Your task to perform on an android device: turn on bluetooth scan Image 0: 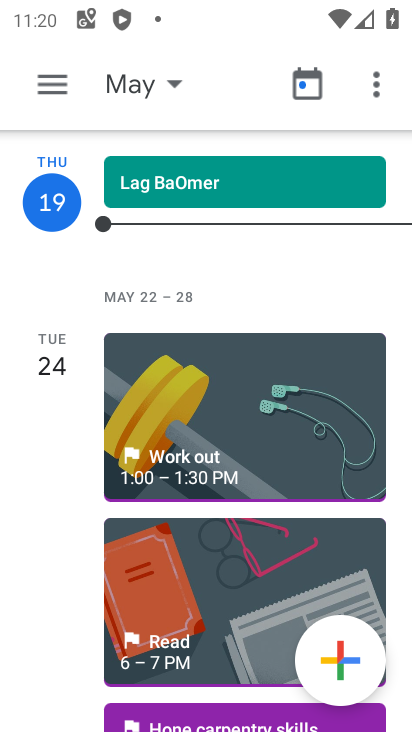
Step 0: press home button
Your task to perform on an android device: turn on bluetooth scan Image 1: 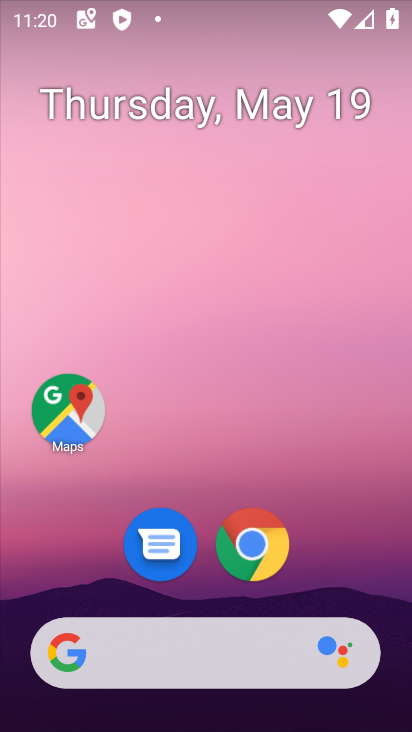
Step 1: drag from (353, 423) to (362, 33)
Your task to perform on an android device: turn on bluetooth scan Image 2: 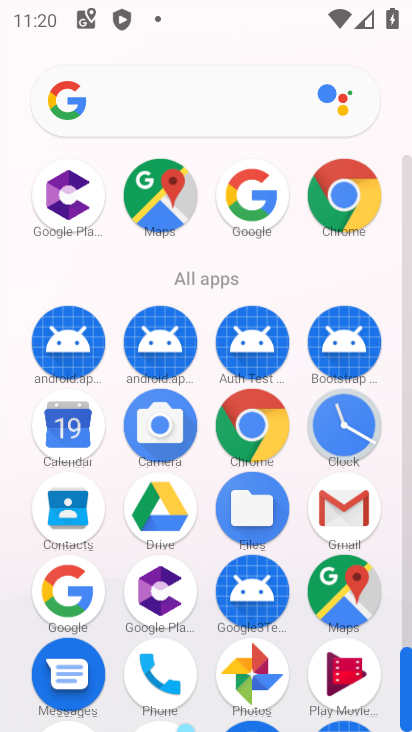
Step 2: drag from (382, 530) to (357, 160)
Your task to perform on an android device: turn on bluetooth scan Image 3: 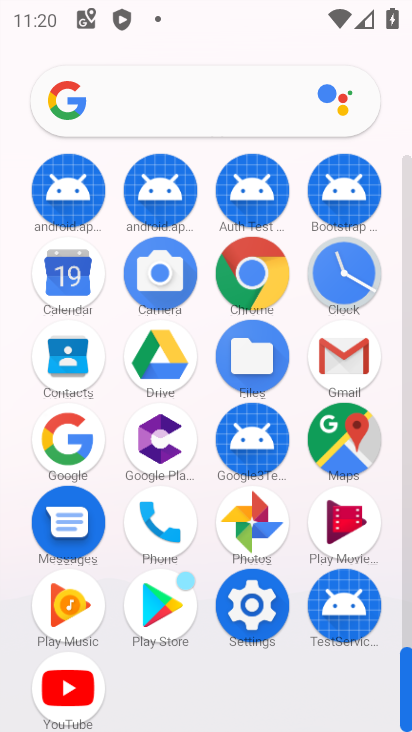
Step 3: click (264, 615)
Your task to perform on an android device: turn on bluetooth scan Image 4: 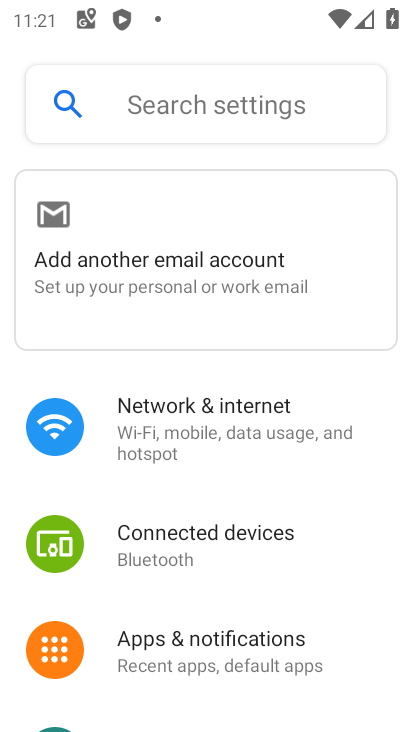
Step 4: drag from (214, 627) to (264, 173)
Your task to perform on an android device: turn on bluetooth scan Image 5: 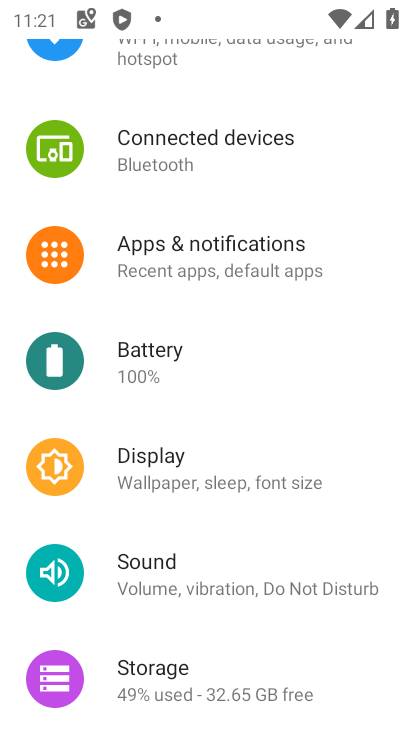
Step 5: drag from (261, 614) to (241, 193)
Your task to perform on an android device: turn on bluetooth scan Image 6: 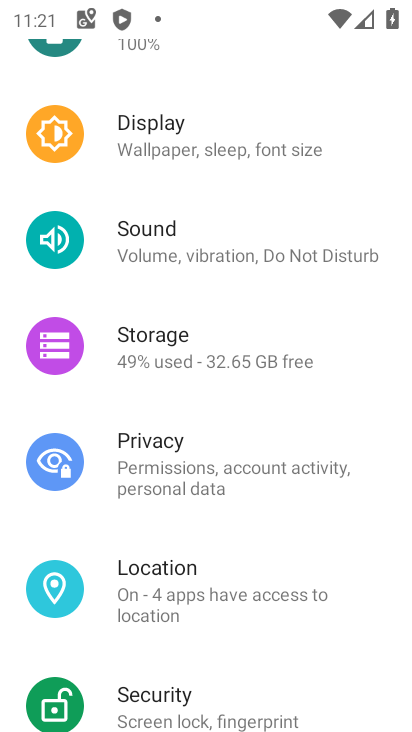
Step 6: click (244, 582)
Your task to perform on an android device: turn on bluetooth scan Image 7: 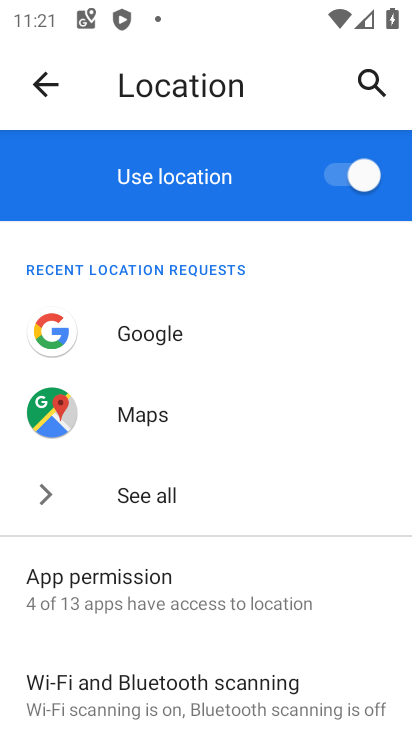
Step 7: drag from (245, 646) to (256, 196)
Your task to perform on an android device: turn on bluetooth scan Image 8: 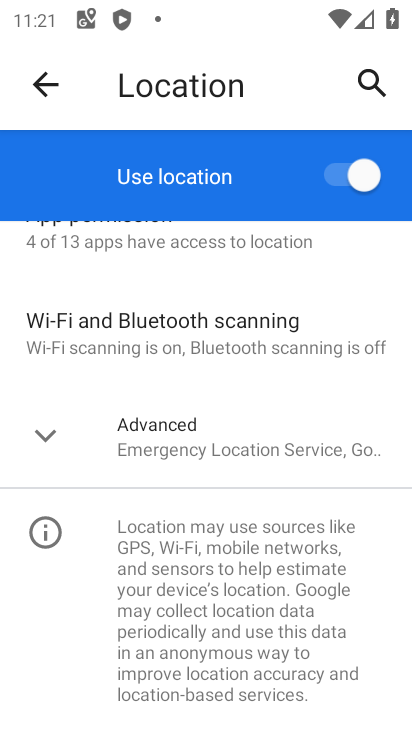
Step 8: click (169, 329)
Your task to perform on an android device: turn on bluetooth scan Image 9: 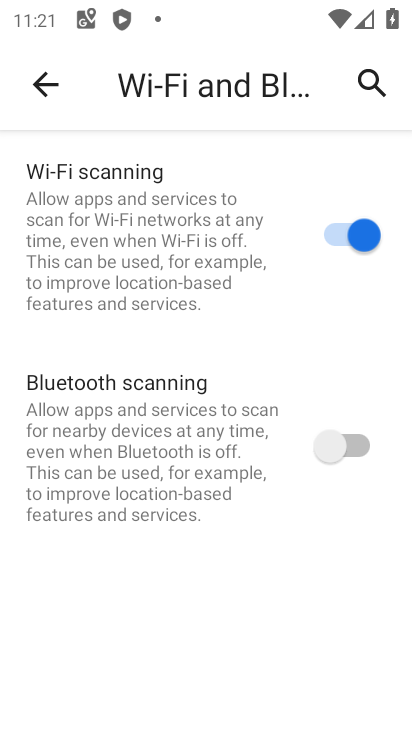
Step 9: click (295, 450)
Your task to perform on an android device: turn on bluetooth scan Image 10: 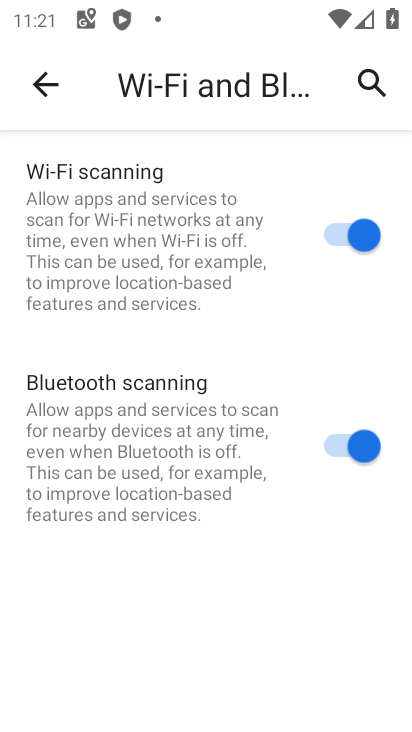
Step 10: task complete